Your task to perform on an android device: search for starred emails in the gmail app Image 0: 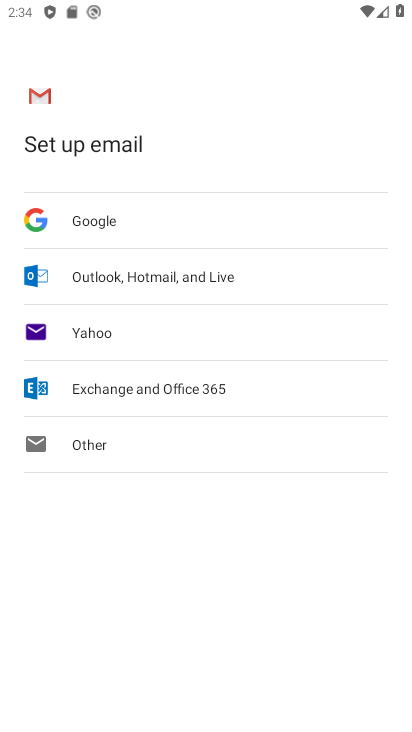
Step 0: press home button
Your task to perform on an android device: search for starred emails in the gmail app Image 1: 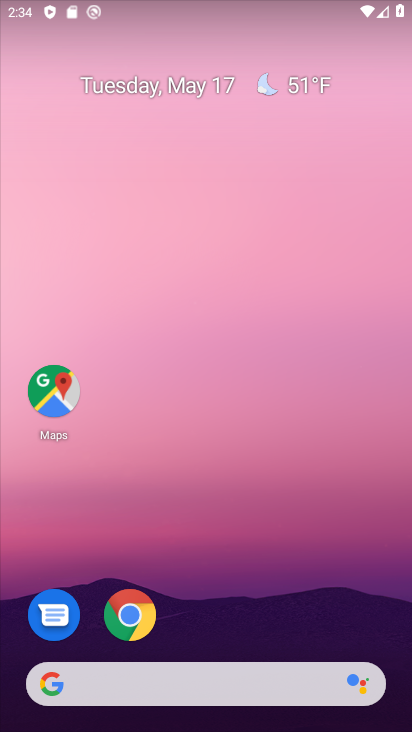
Step 1: drag from (205, 640) to (251, 127)
Your task to perform on an android device: search for starred emails in the gmail app Image 2: 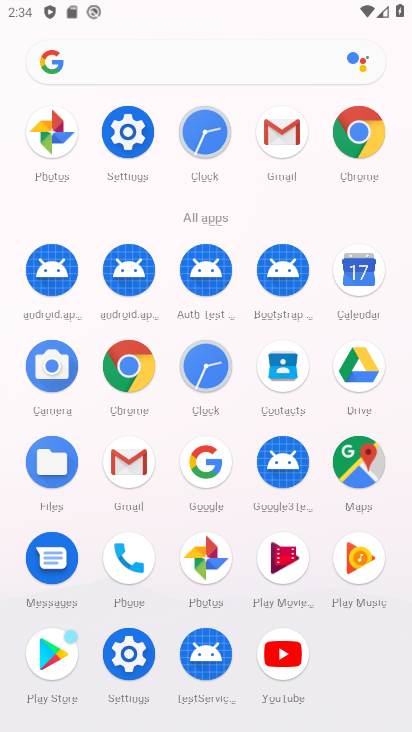
Step 2: click (128, 454)
Your task to perform on an android device: search for starred emails in the gmail app Image 3: 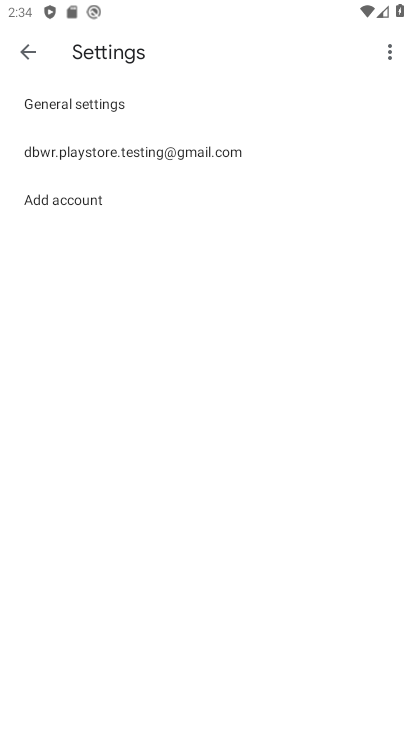
Step 3: click (24, 54)
Your task to perform on an android device: search for starred emails in the gmail app Image 4: 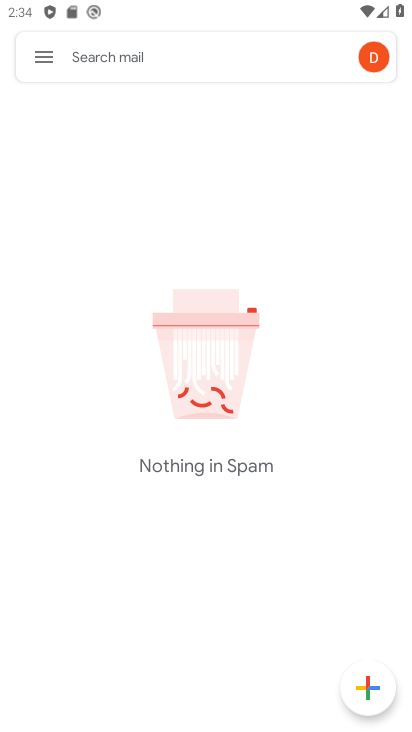
Step 4: click (43, 65)
Your task to perform on an android device: search for starred emails in the gmail app Image 5: 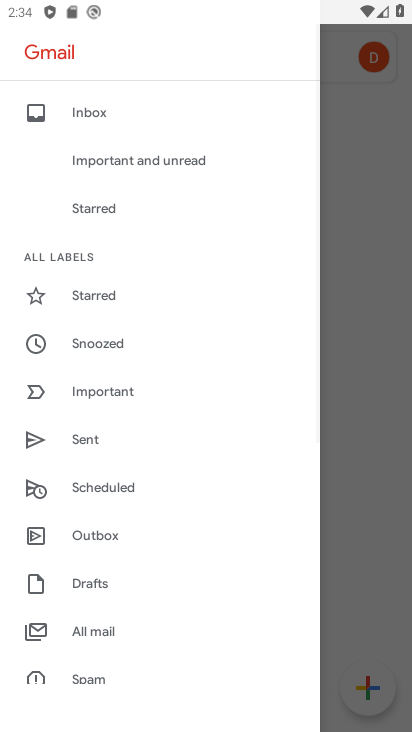
Step 5: click (118, 292)
Your task to perform on an android device: search for starred emails in the gmail app Image 6: 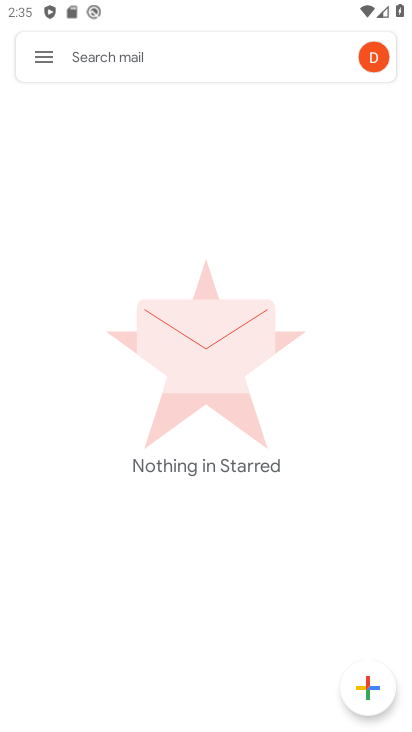
Step 6: task complete